Your task to perform on an android device: turn on the 24-hour format for clock Image 0: 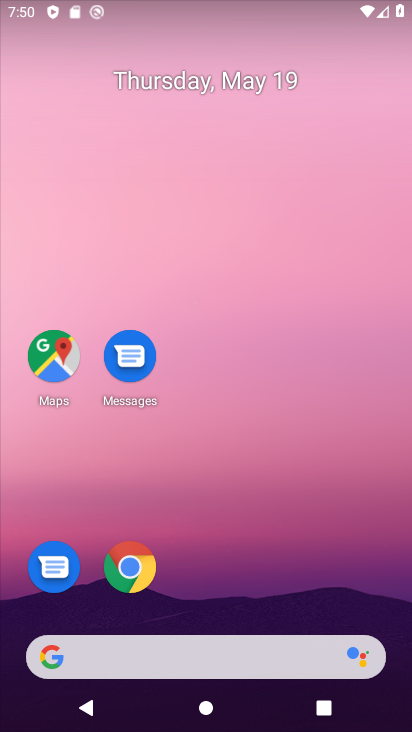
Step 0: drag from (215, 634) to (143, 35)
Your task to perform on an android device: turn on the 24-hour format for clock Image 1: 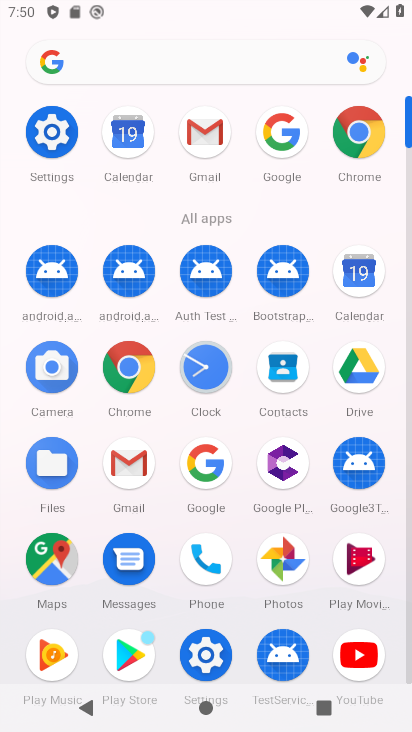
Step 1: click (201, 353)
Your task to perform on an android device: turn on the 24-hour format for clock Image 2: 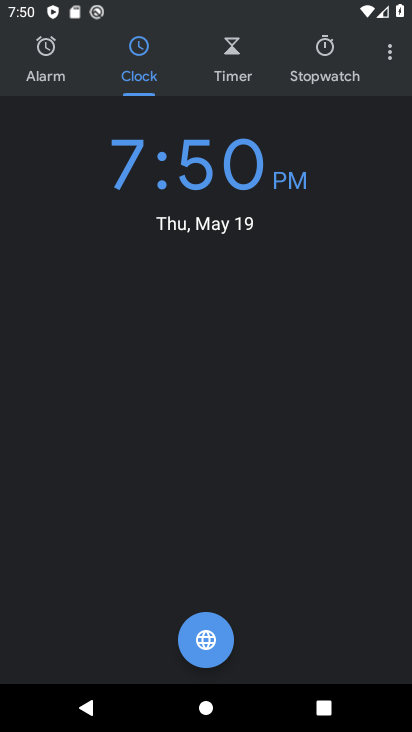
Step 2: click (395, 52)
Your task to perform on an android device: turn on the 24-hour format for clock Image 3: 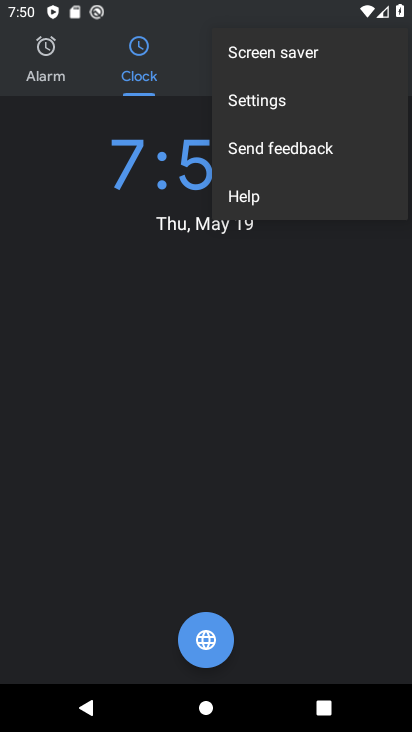
Step 3: click (307, 102)
Your task to perform on an android device: turn on the 24-hour format for clock Image 4: 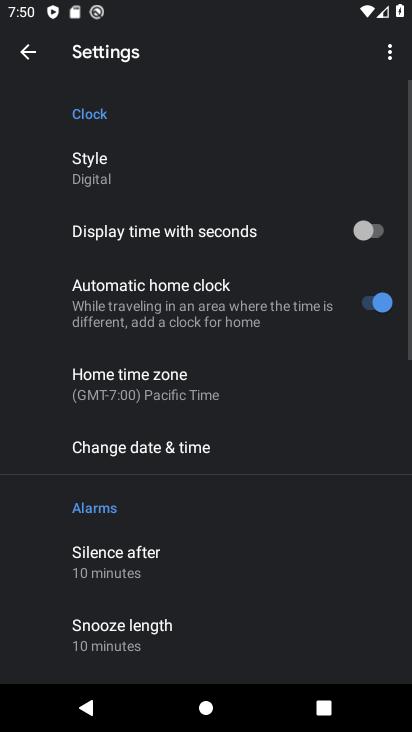
Step 4: drag from (250, 538) to (239, 390)
Your task to perform on an android device: turn on the 24-hour format for clock Image 5: 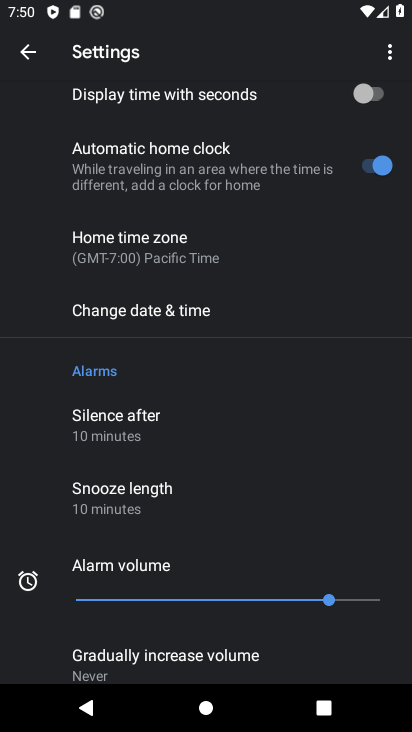
Step 5: click (150, 319)
Your task to perform on an android device: turn on the 24-hour format for clock Image 6: 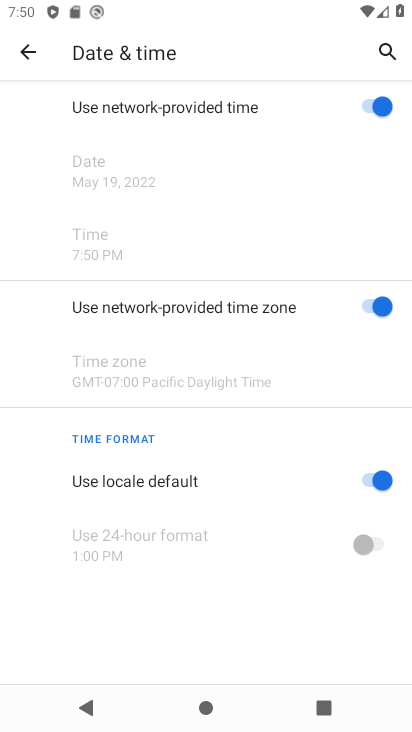
Step 6: click (384, 487)
Your task to perform on an android device: turn on the 24-hour format for clock Image 7: 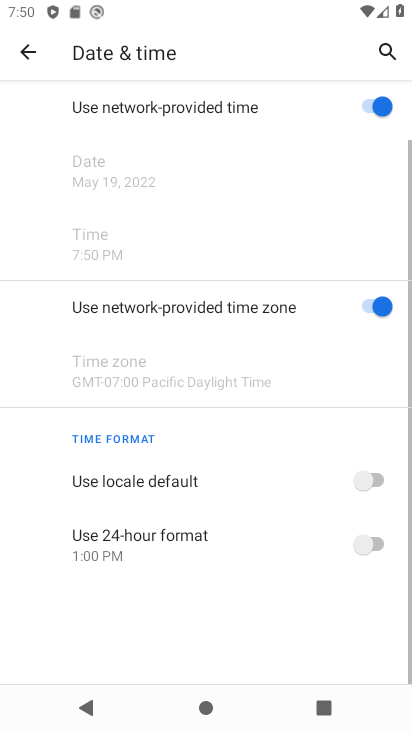
Step 7: click (370, 543)
Your task to perform on an android device: turn on the 24-hour format for clock Image 8: 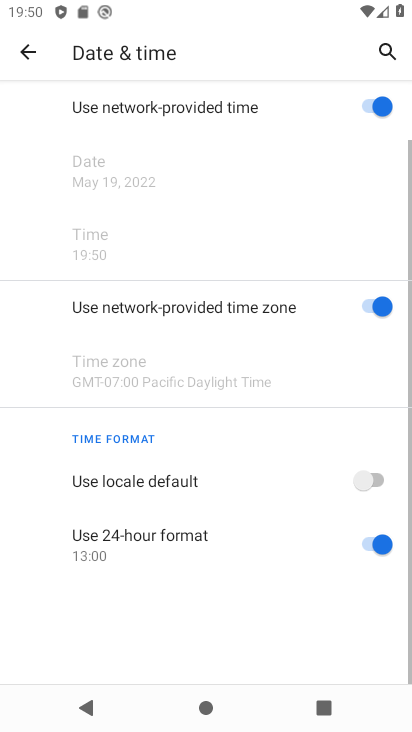
Step 8: task complete